Your task to perform on an android device: Search for Mexican restaurants on Maps Image 0: 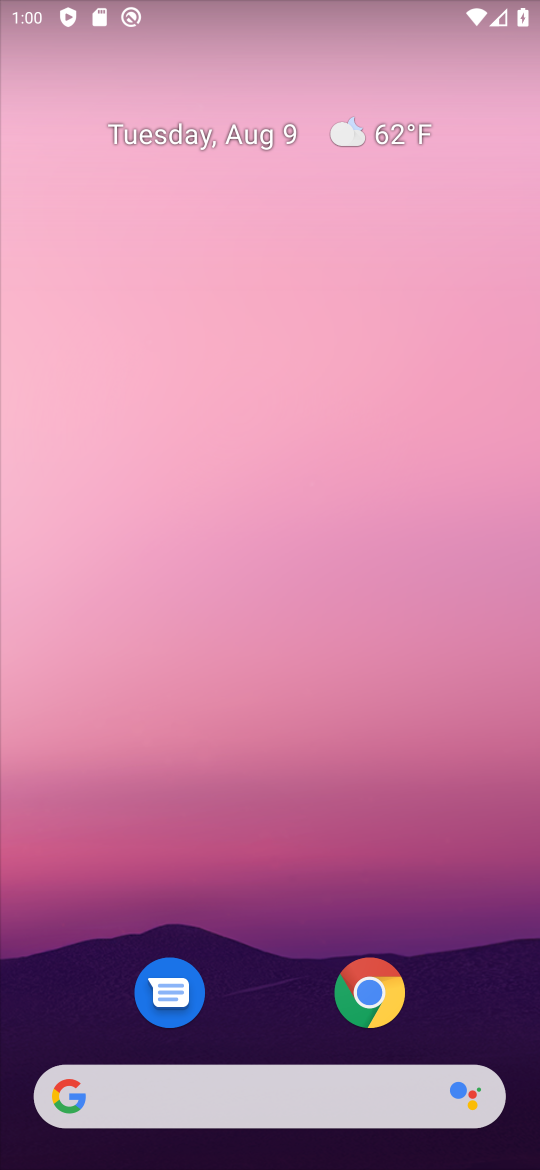
Step 0: drag from (296, 1019) to (493, 81)
Your task to perform on an android device: Search for Mexican restaurants on Maps Image 1: 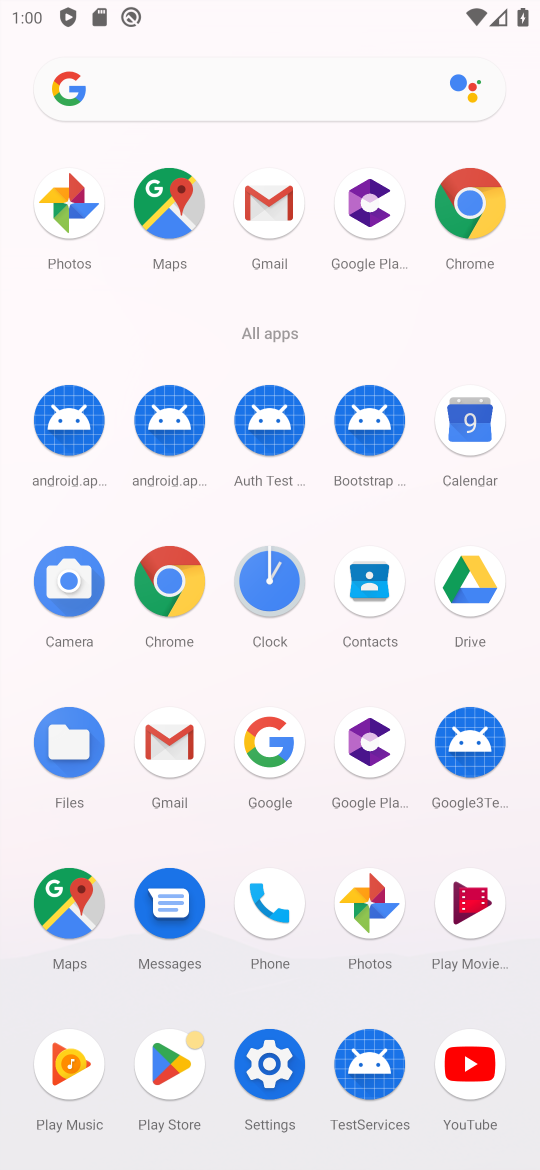
Step 1: click (83, 919)
Your task to perform on an android device: Search for Mexican restaurants on Maps Image 2: 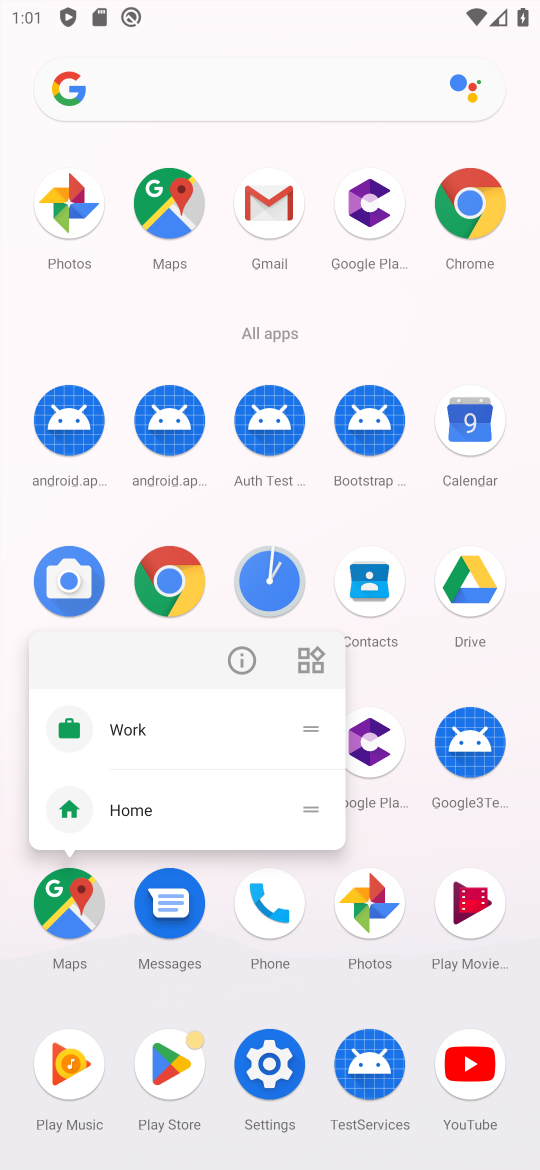
Step 2: click (89, 898)
Your task to perform on an android device: Search for Mexican restaurants on Maps Image 3: 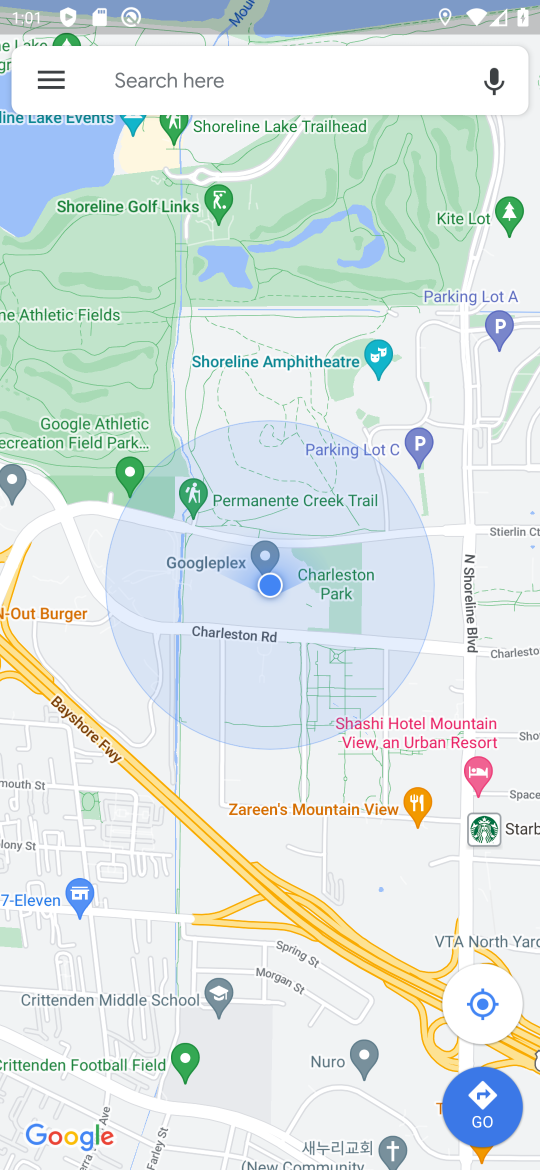
Step 3: click (234, 81)
Your task to perform on an android device: Search for Mexican restaurants on Maps Image 4: 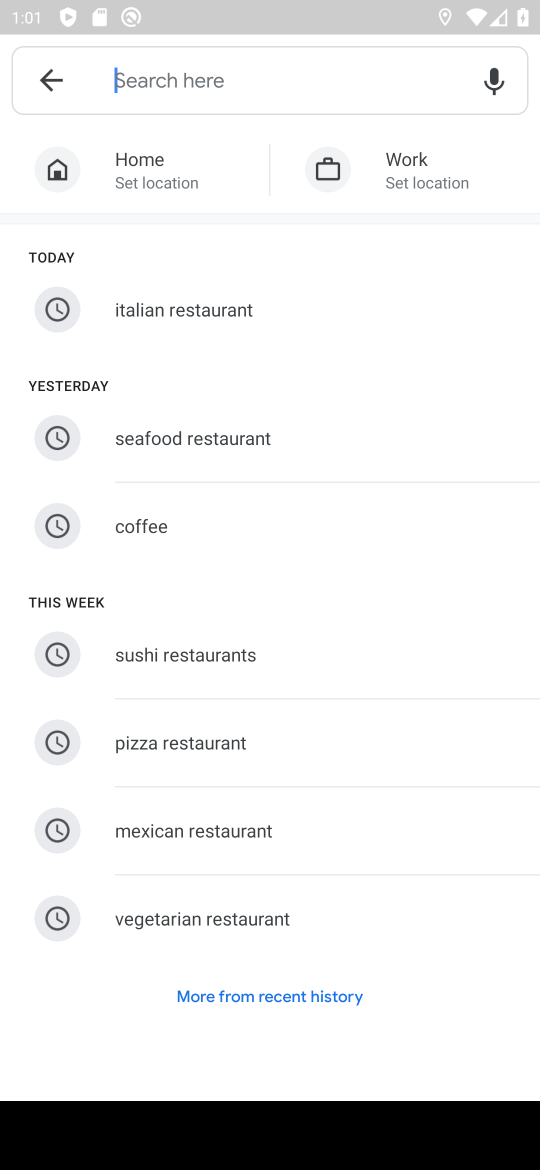
Step 4: click (175, 831)
Your task to perform on an android device: Search for Mexican restaurants on Maps Image 5: 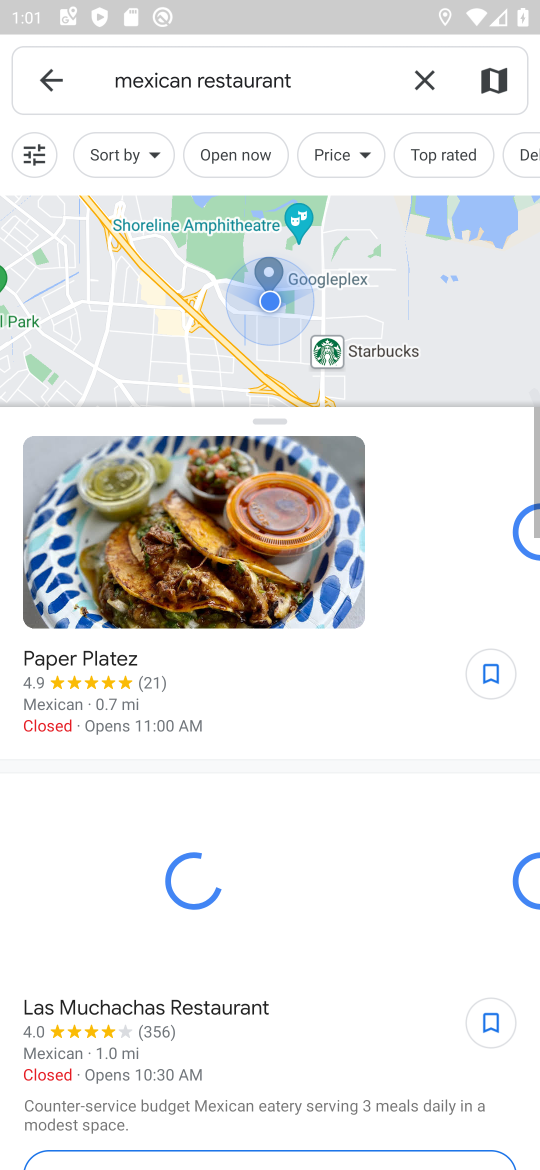
Step 5: task complete